Your task to perform on an android device: allow notifications from all sites in the chrome app Image 0: 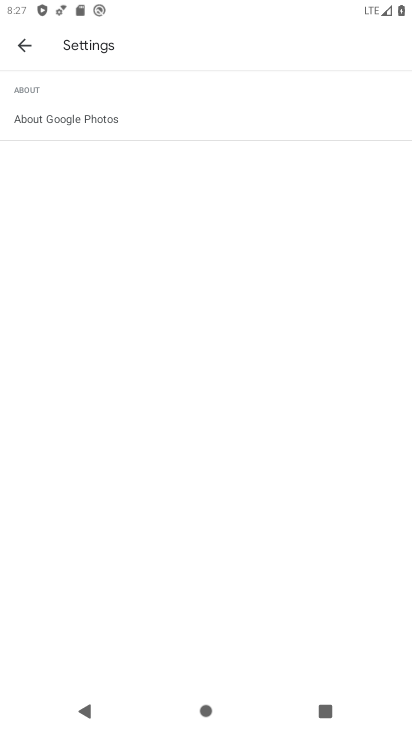
Step 0: press home button
Your task to perform on an android device: allow notifications from all sites in the chrome app Image 1: 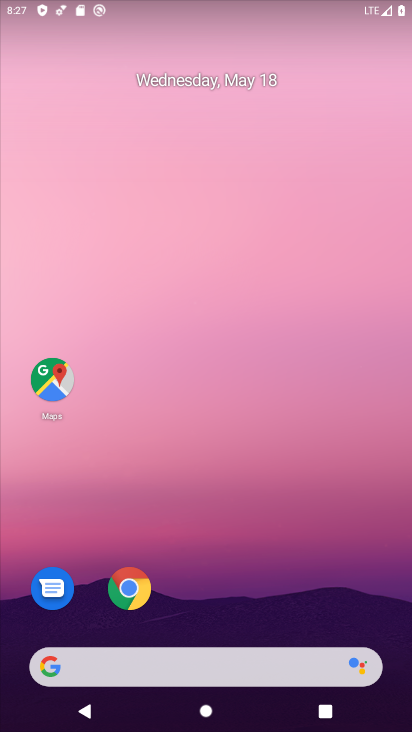
Step 1: click (128, 587)
Your task to perform on an android device: allow notifications from all sites in the chrome app Image 2: 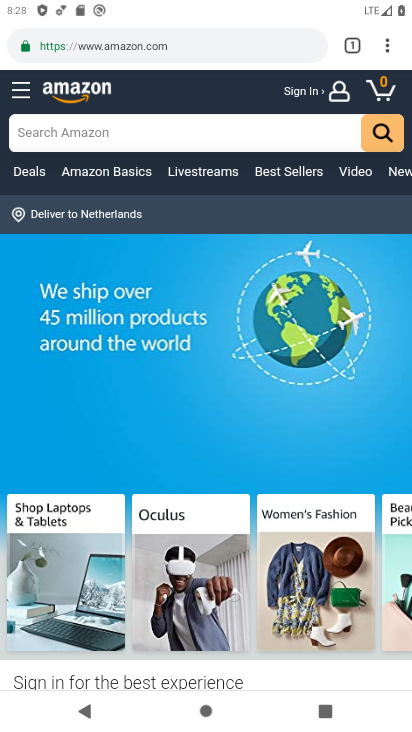
Step 2: click (388, 45)
Your task to perform on an android device: allow notifications from all sites in the chrome app Image 3: 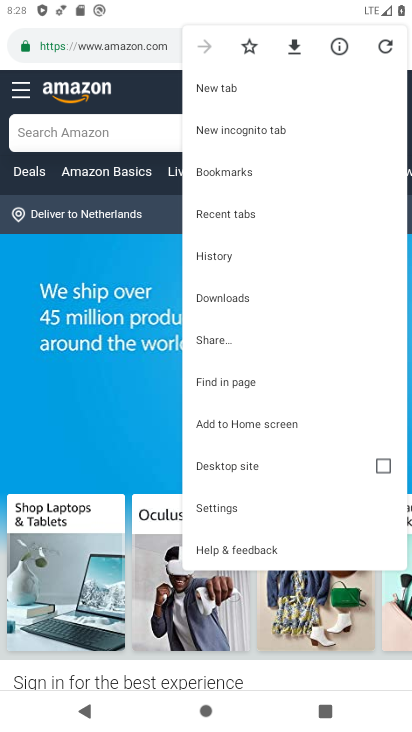
Step 3: click (220, 505)
Your task to perform on an android device: allow notifications from all sites in the chrome app Image 4: 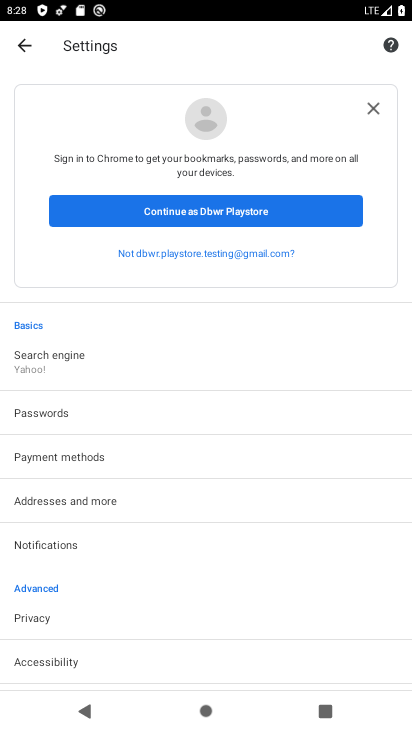
Step 4: drag from (120, 566) to (120, 204)
Your task to perform on an android device: allow notifications from all sites in the chrome app Image 5: 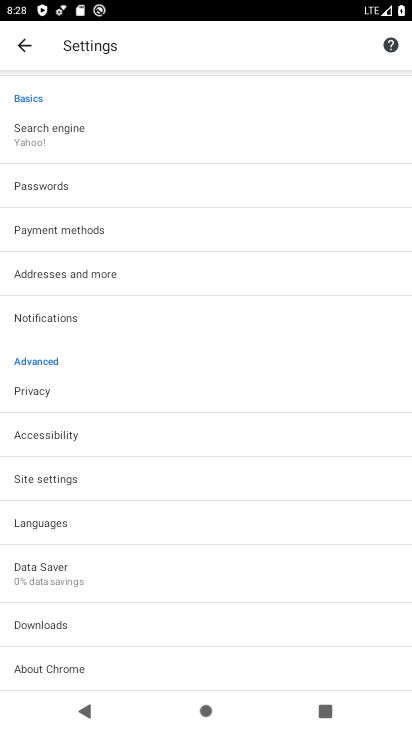
Step 5: click (54, 477)
Your task to perform on an android device: allow notifications from all sites in the chrome app Image 6: 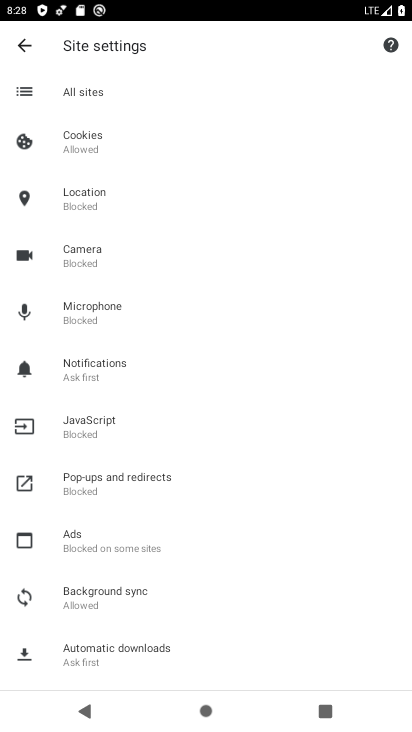
Step 6: click (96, 362)
Your task to perform on an android device: allow notifications from all sites in the chrome app Image 7: 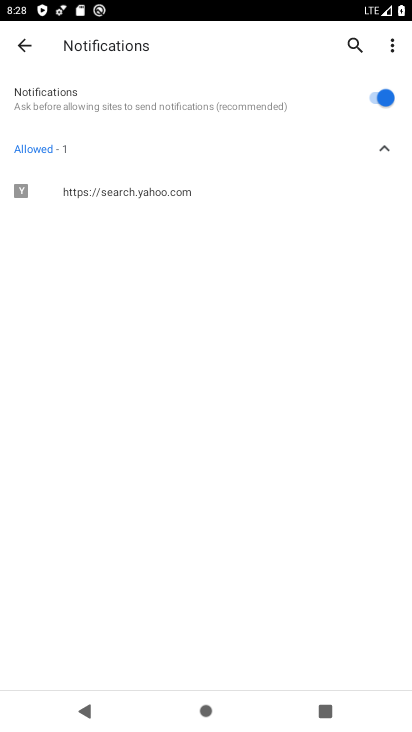
Step 7: task complete